Your task to perform on an android device: turn on translation in the chrome app Image 0: 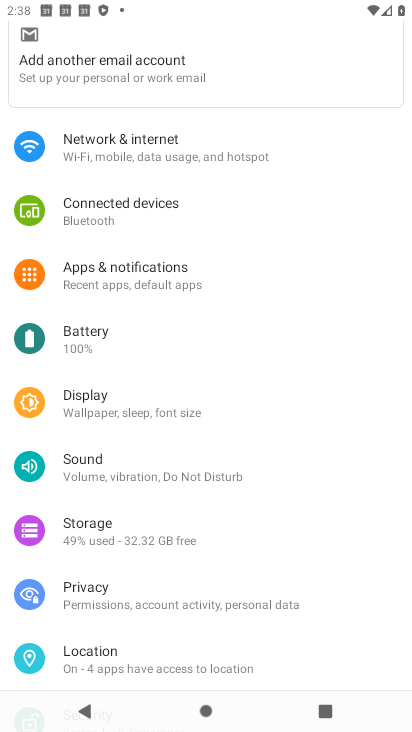
Step 0: press home button
Your task to perform on an android device: turn on translation in the chrome app Image 1: 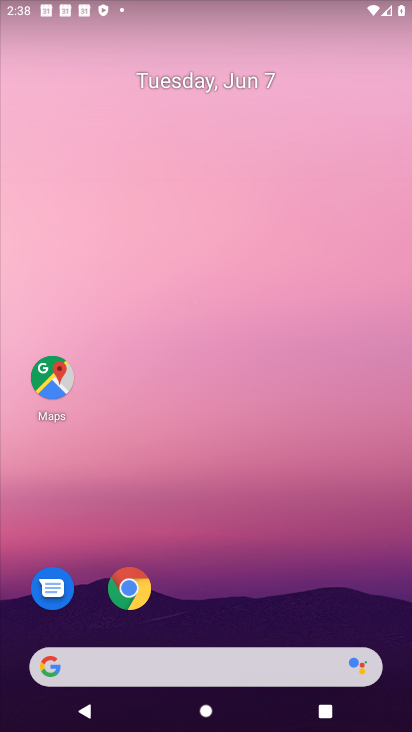
Step 1: drag from (292, 589) to (295, 248)
Your task to perform on an android device: turn on translation in the chrome app Image 2: 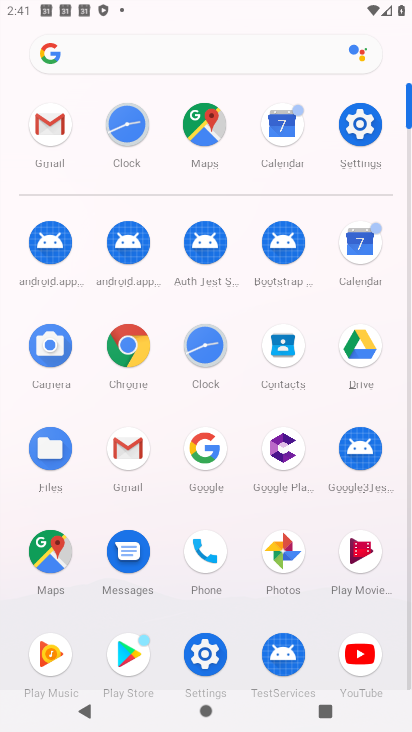
Step 2: click (109, 335)
Your task to perform on an android device: turn on translation in the chrome app Image 3: 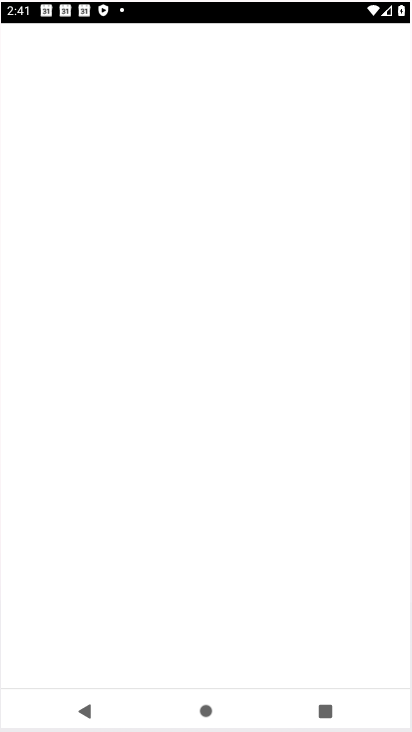
Step 3: task complete